Your task to perform on an android device: Open Chrome and go to the settings page Image 0: 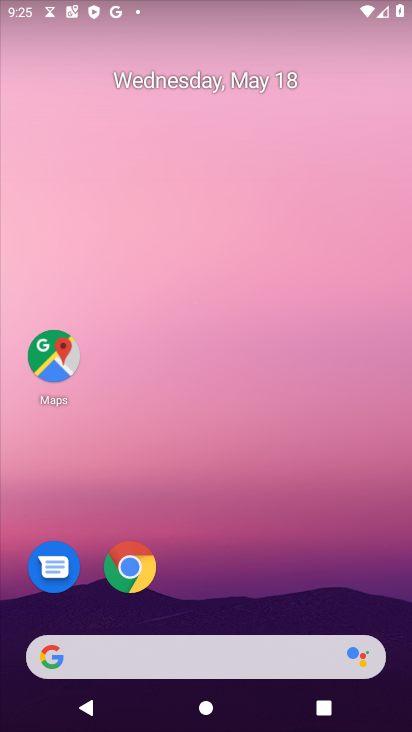
Step 0: click (131, 557)
Your task to perform on an android device: Open Chrome and go to the settings page Image 1: 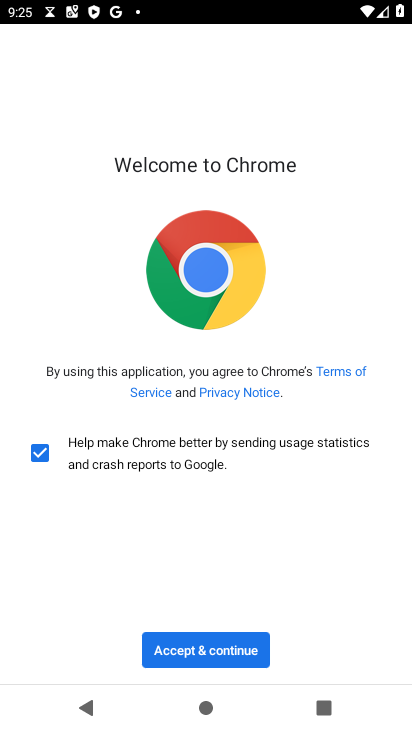
Step 1: click (188, 653)
Your task to perform on an android device: Open Chrome and go to the settings page Image 2: 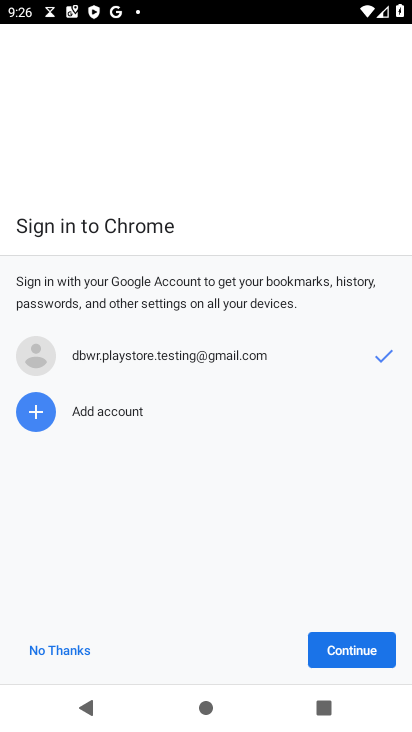
Step 2: click (339, 655)
Your task to perform on an android device: Open Chrome and go to the settings page Image 3: 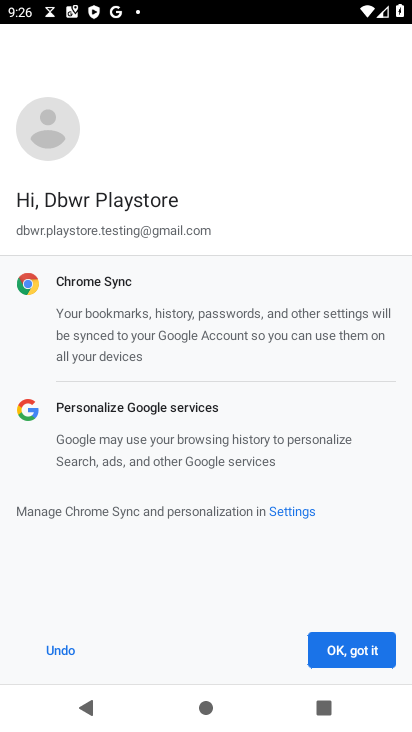
Step 3: click (339, 655)
Your task to perform on an android device: Open Chrome and go to the settings page Image 4: 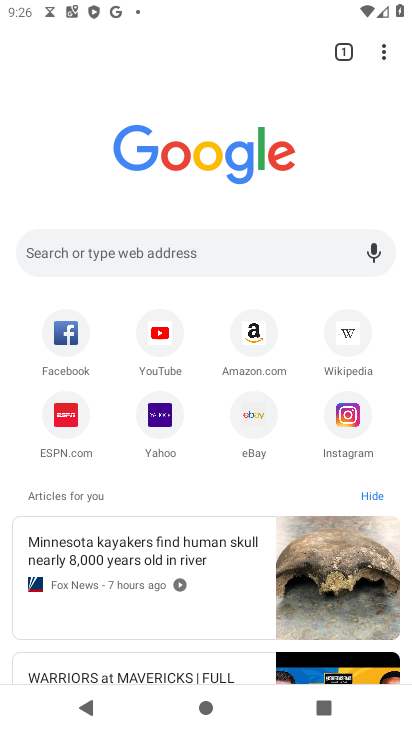
Step 4: task complete